Your task to perform on an android device: open a bookmark in the chrome app Image 0: 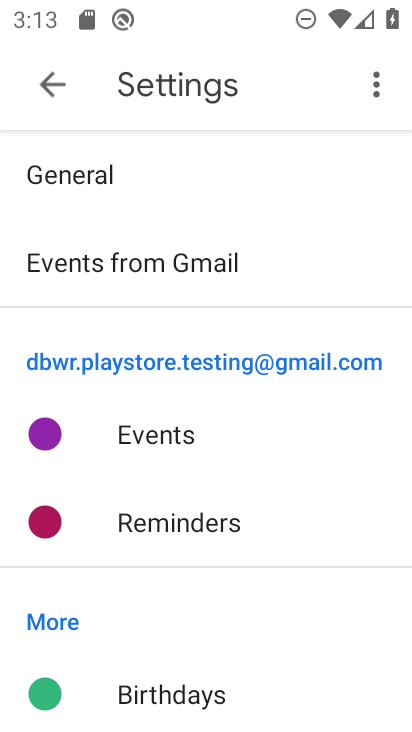
Step 0: press home button
Your task to perform on an android device: open a bookmark in the chrome app Image 1: 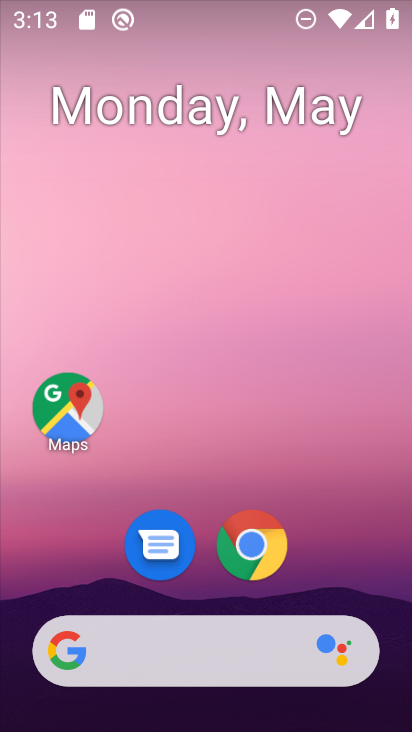
Step 1: click (275, 551)
Your task to perform on an android device: open a bookmark in the chrome app Image 2: 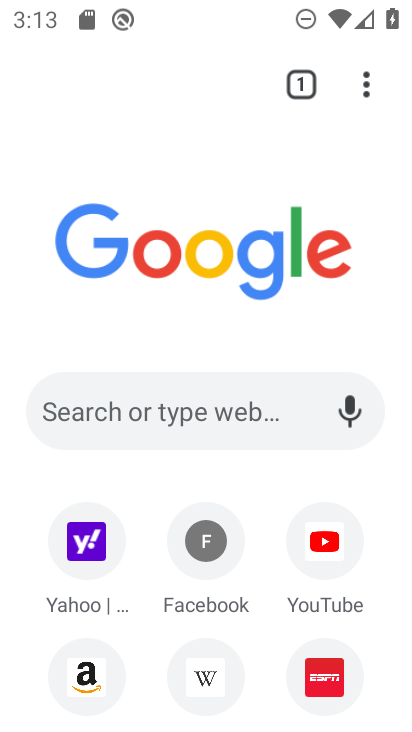
Step 2: drag from (361, 94) to (212, 345)
Your task to perform on an android device: open a bookmark in the chrome app Image 3: 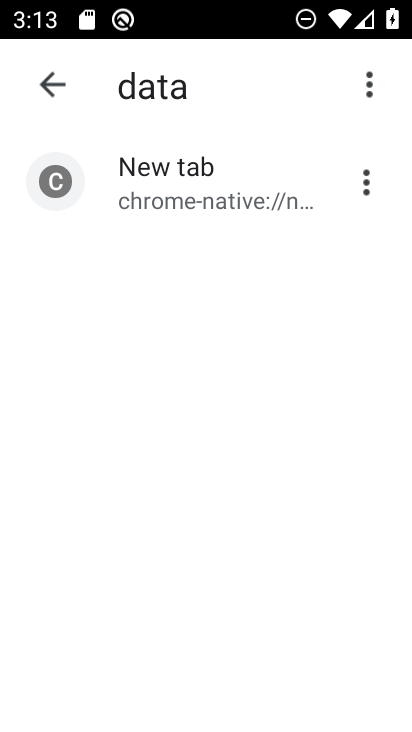
Step 3: click (187, 170)
Your task to perform on an android device: open a bookmark in the chrome app Image 4: 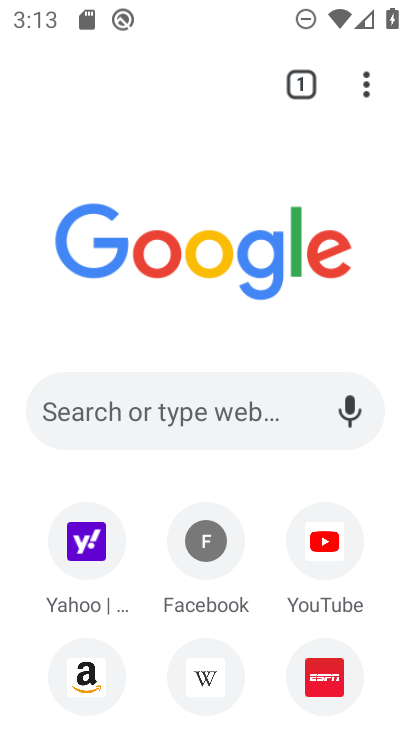
Step 4: task complete